Your task to perform on an android device: When is my next meeting? Image 0: 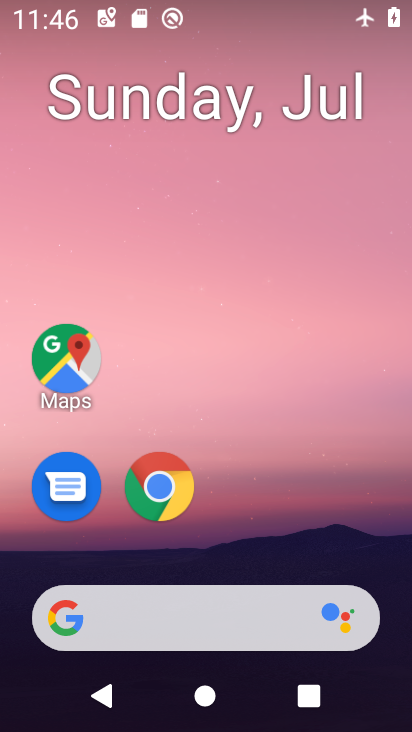
Step 0: press home button
Your task to perform on an android device: When is my next meeting? Image 1: 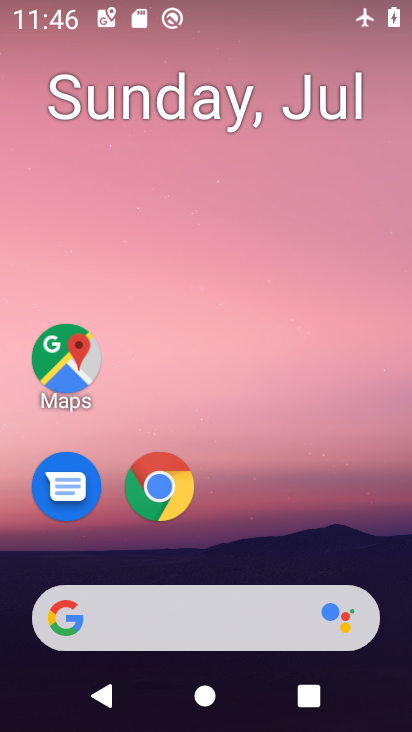
Step 1: drag from (354, 495) to (339, 113)
Your task to perform on an android device: When is my next meeting? Image 2: 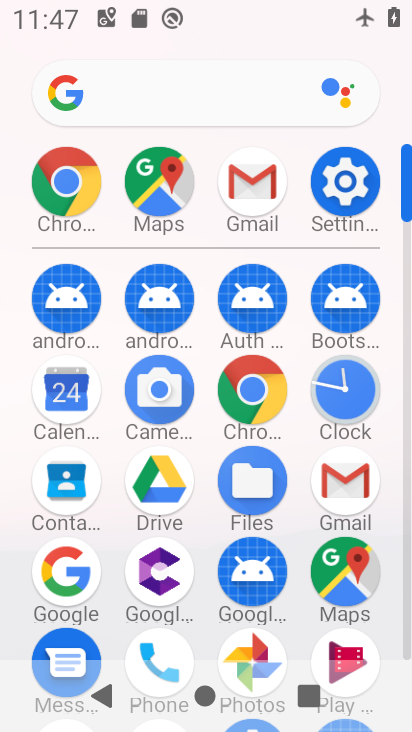
Step 2: click (71, 396)
Your task to perform on an android device: When is my next meeting? Image 3: 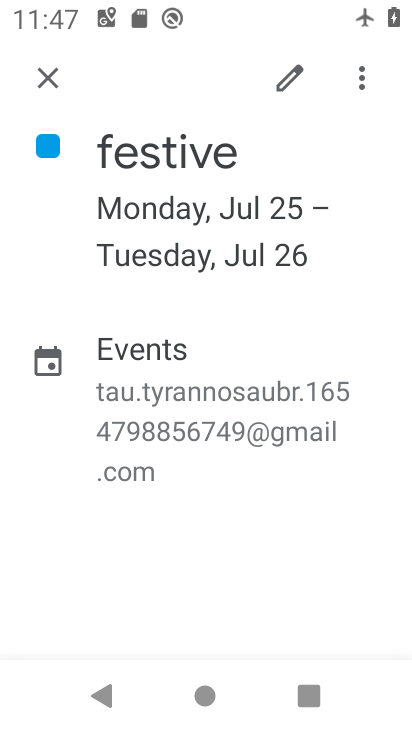
Step 3: task complete